Your task to perform on an android device: Do I have any events this weekend? Image 0: 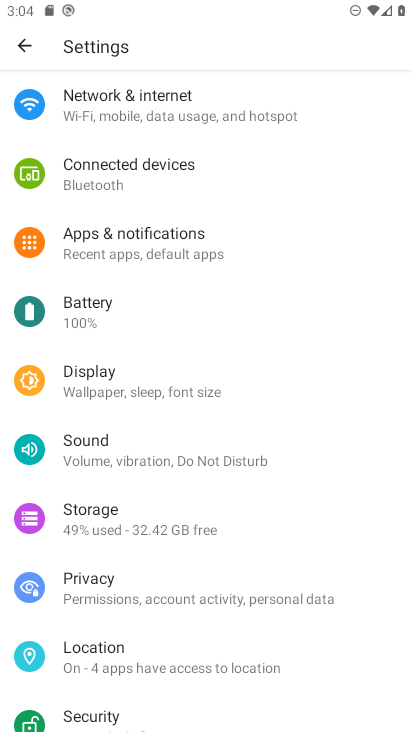
Step 0: press home button
Your task to perform on an android device: Do I have any events this weekend? Image 1: 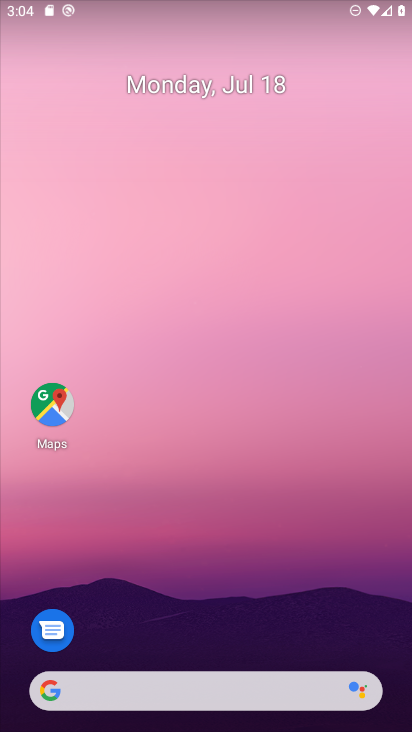
Step 1: drag from (94, 701) to (125, 108)
Your task to perform on an android device: Do I have any events this weekend? Image 2: 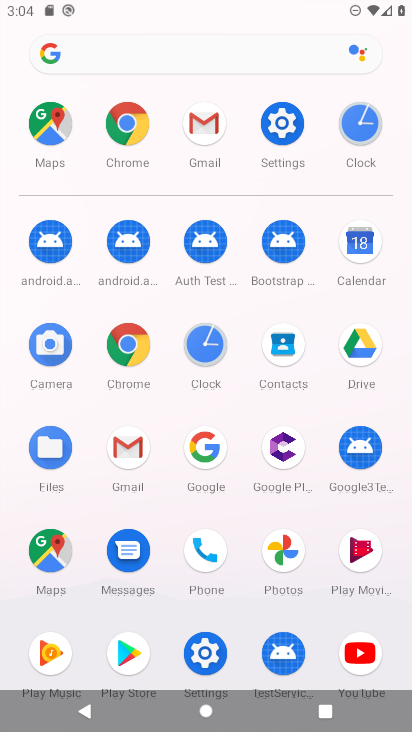
Step 2: click (358, 261)
Your task to perform on an android device: Do I have any events this weekend? Image 3: 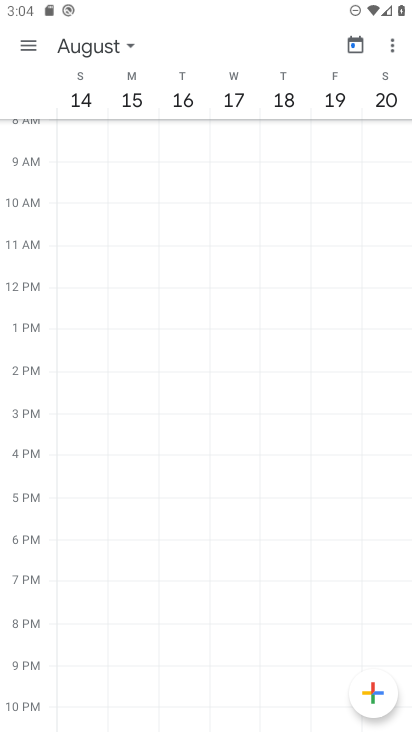
Step 3: click (126, 44)
Your task to perform on an android device: Do I have any events this weekend? Image 4: 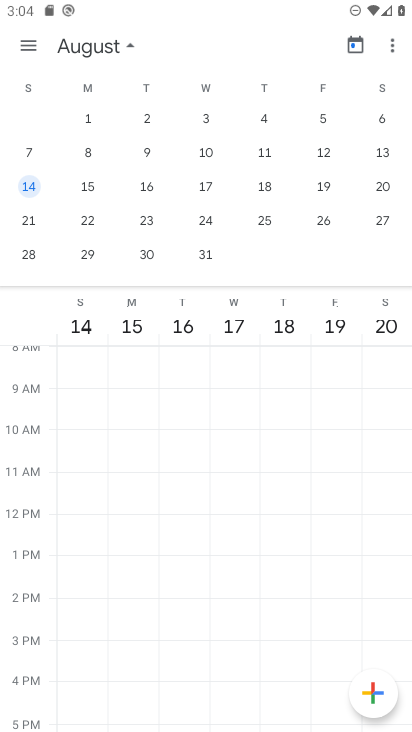
Step 4: drag from (75, 197) to (389, 199)
Your task to perform on an android device: Do I have any events this weekend? Image 5: 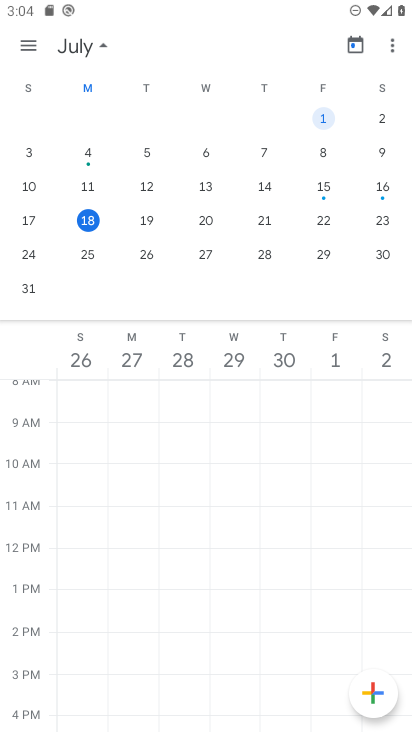
Step 5: click (381, 215)
Your task to perform on an android device: Do I have any events this weekend? Image 6: 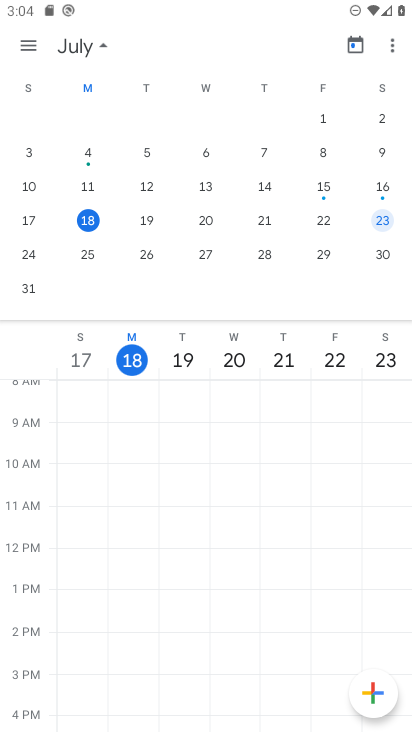
Step 6: task complete